Your task to perform on an android device: Show me popular games on the Play Store Image 0: 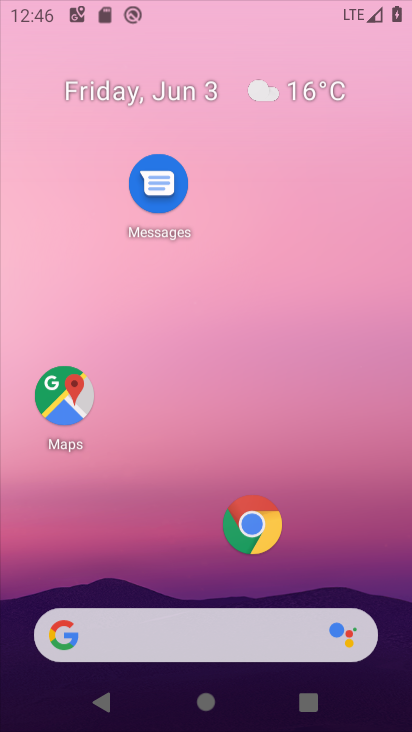
Step 0: press home button
Your task to perform on an android device: Show me popular games on the Play Store Image 1: 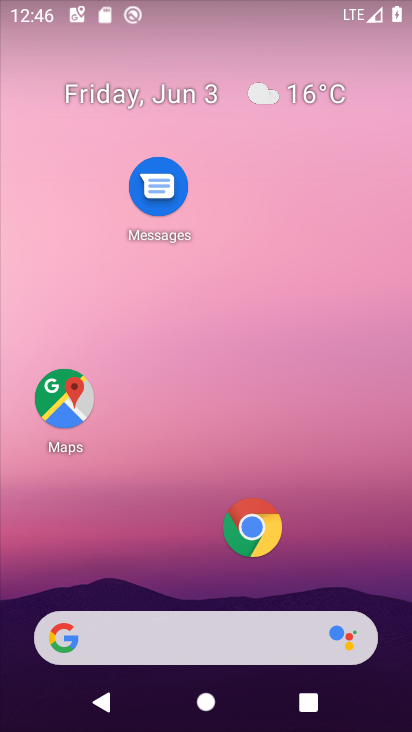
Step 1: drag from (213, 577) to (237, 12)
Your task to perform on an android device: Show me popular games on the Play Store Image 2: 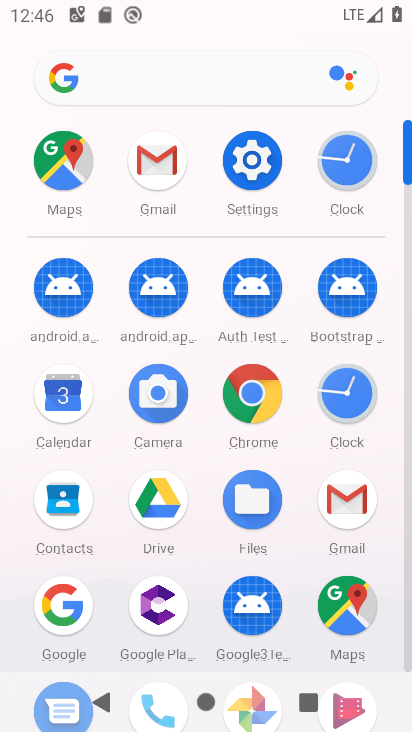
Step 2: drag from (207, 576) to (228, 127)
Your task to perform on an android device: Show me popular games on the Play Store Image 3: 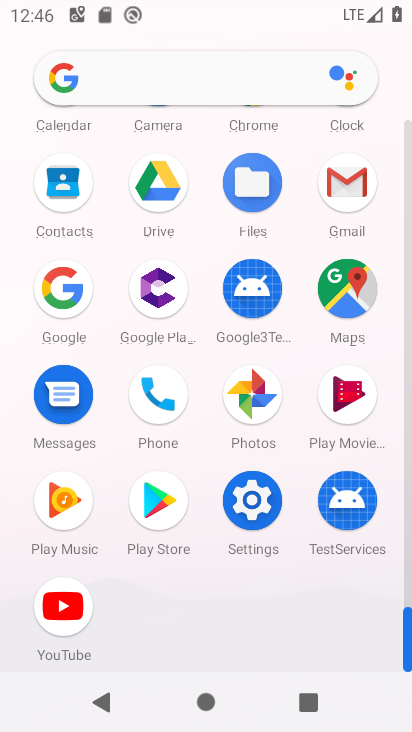
Step 3: click (153, 497)
Your task to perform on an android device: Show me popular games on the Play Store Image 4: 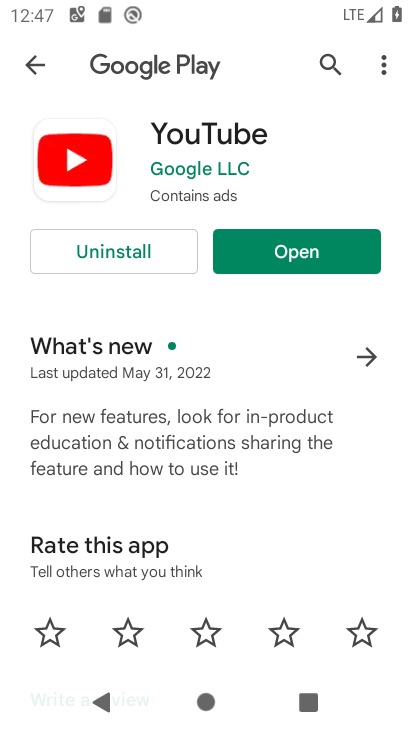
Step 4: click (26, 72)
Your task to perform on an android device: Show me popular games on the Play Store Image 5: 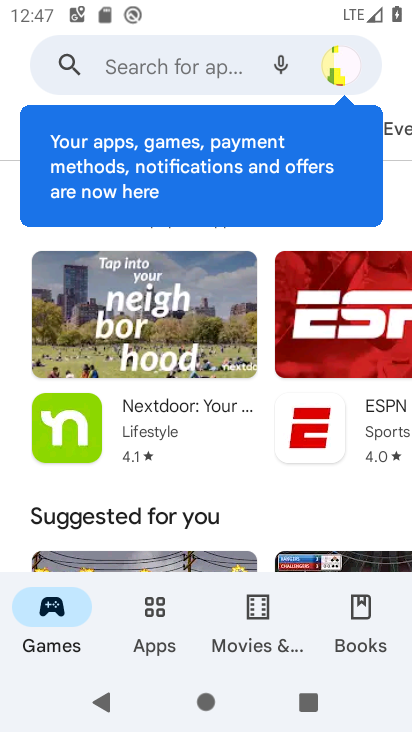
Step 5: drag from (200, 484) to (267, 95)
Your task to perform on an android device: Show me popular games on the Play Store Image 6: 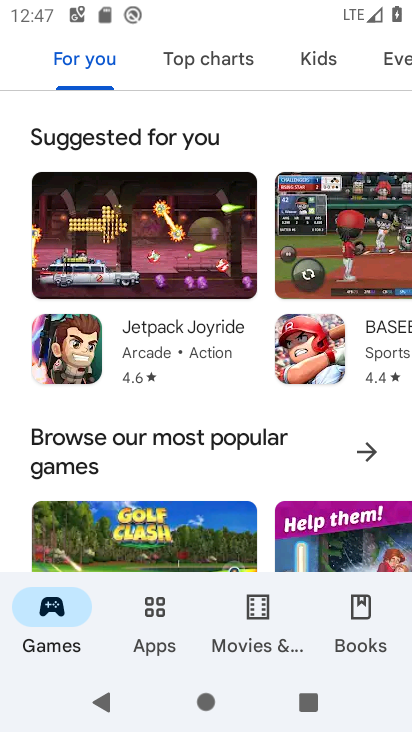
Step 6: drag from (276, 331) to (313, 198)
Your task to perform on an android device: Show me popular games on the Play Store Image 7: 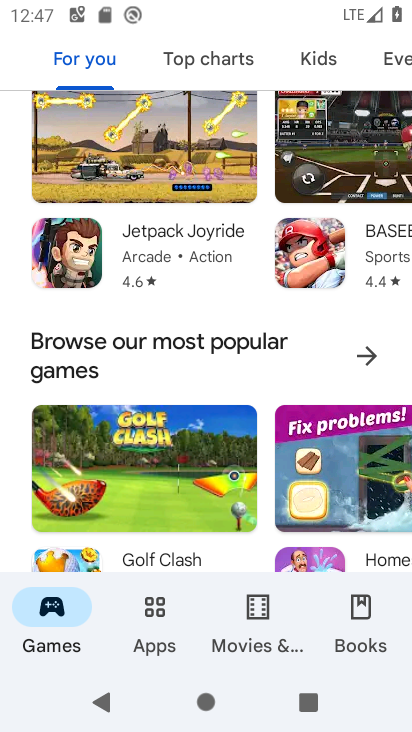
Step 7: click (363, 354)
Your task to perform on an android device: Show me popular games on the Play Store Image 8: 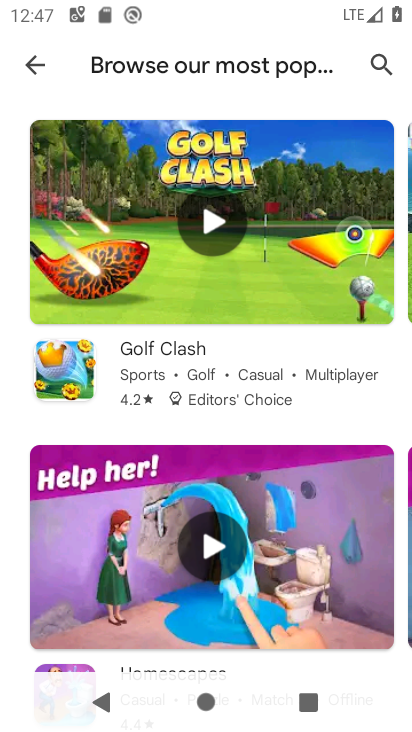
Step 8: task complete